Your task to perform on an android device: toggle sleep mode Image 0: 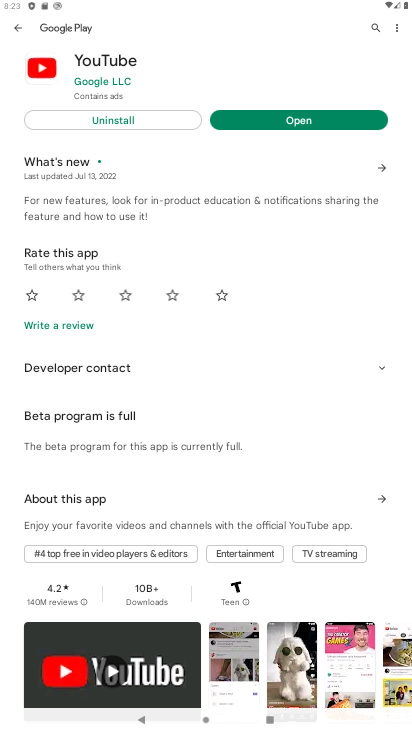
Step 0: press home button
Your task to perform on an android device: toggle sleep mode Image 1: 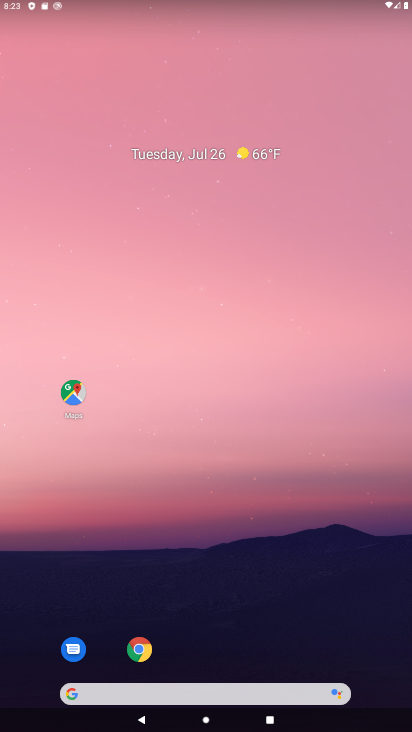
Step 1: drag from (139, 717) to (146, 77)
Your task to perform on an android device: toggle sleep mode Image 2: 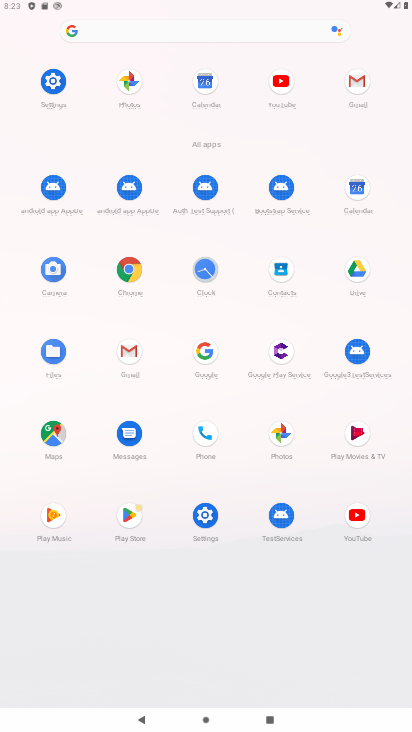
Step 2: click (47, 80)
Your task to perform on an android device: toggle sleep mode Image 3: 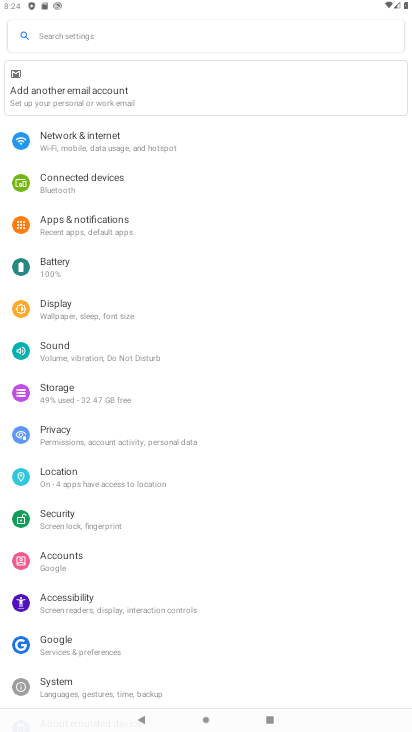
Step 3: click (121, 303)
Your task to perform on an android device: toggle sleep mode Image 4: 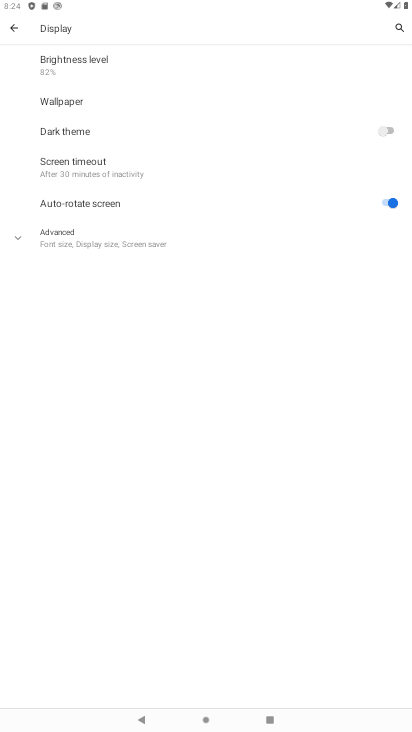
Step 4: task complete